Your task to perform on an android device: What's the weather? Image 0: 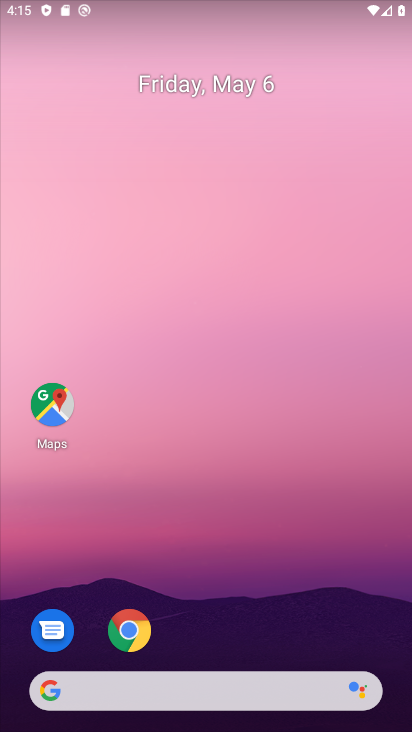
Step 0: drag from (184, 628) to (166, 257)
Your task to perform on an android device: What's the weather? Image 1: 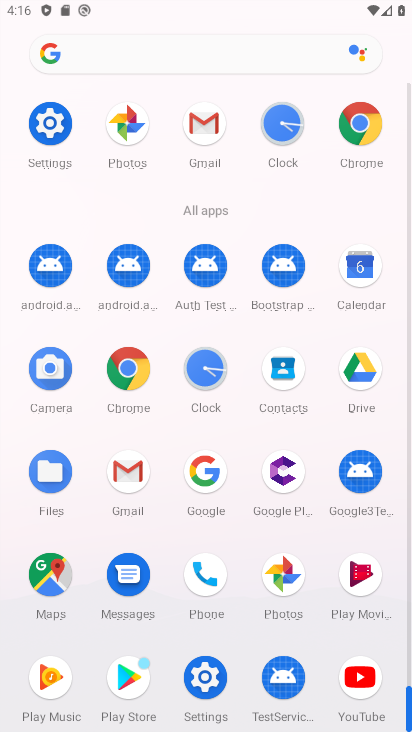
Step 1: click (209, 476)
Your task to perform on an android device: What's the weather? Image 2: 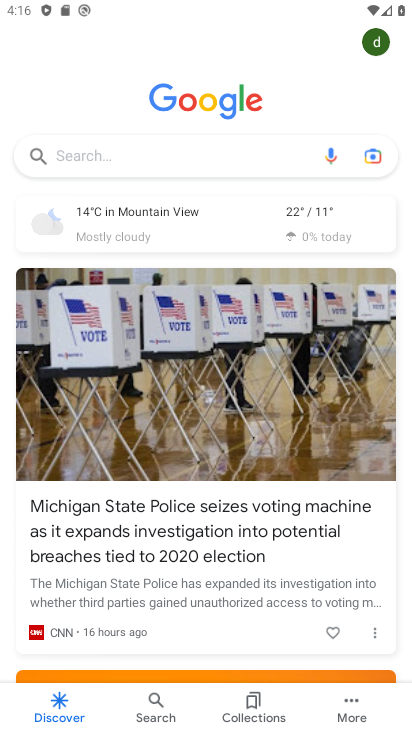
Step 2: click (95, 155)
Your task to perform on an android device: What's the weather? Image 3: 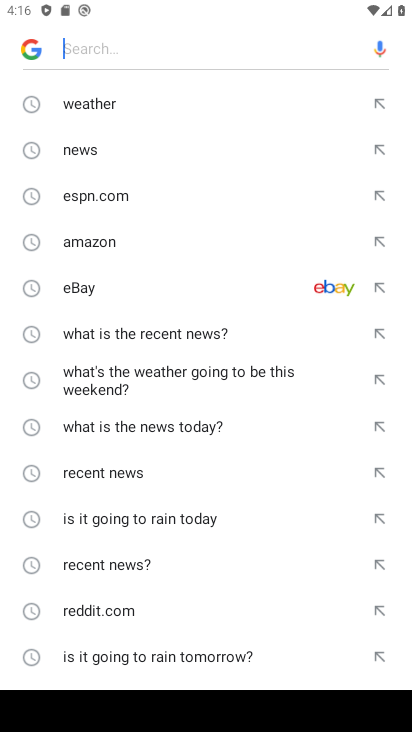
Step 3: click (162, 112)
Your task to perform on an android device: What's the weather? Image 4: 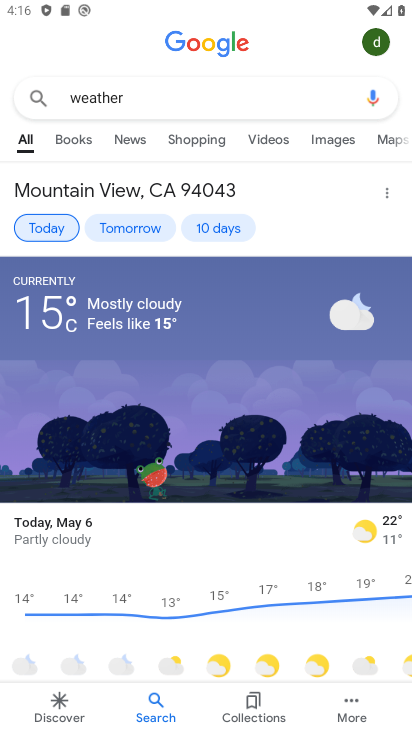
Step 4: task complete